Your task to perform on an android device: set the stopwatch Image 0: 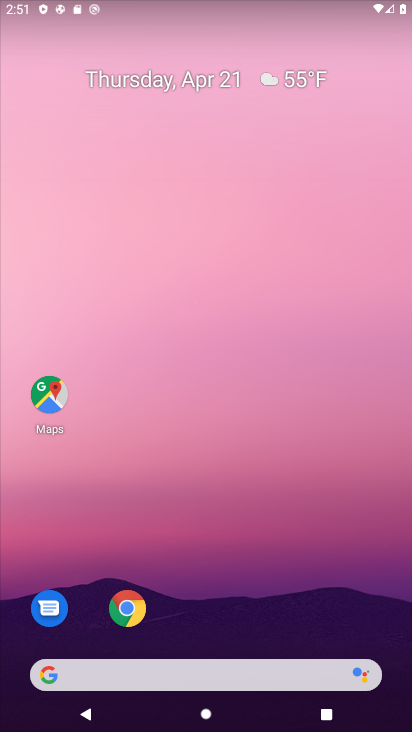
Step 0: drag from (253, 583) to (291, 2)
Your task to perform on an android device: set the stopwatch Image 1: 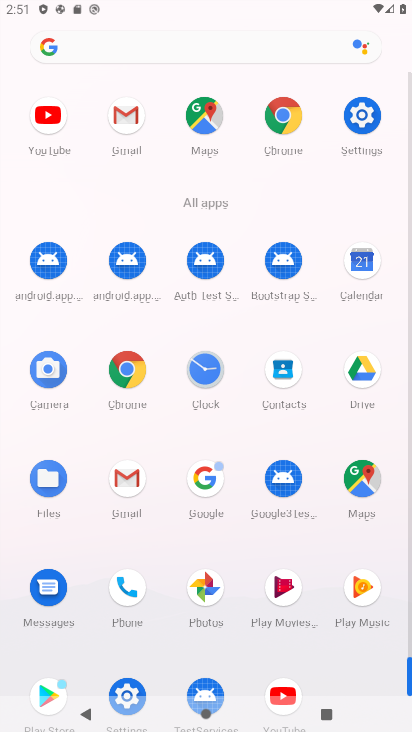
Step 1: click (199, 373)
Your task to perform on an android device: set the stopwatch Image 2: 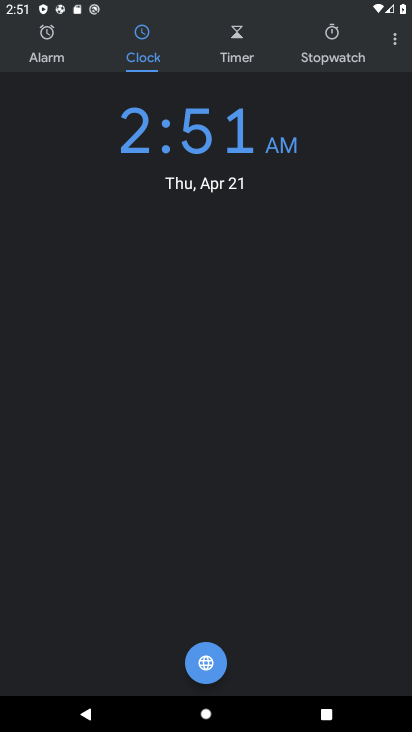
Step 2: click (345, 45)
Your task to perform on an android device: set the stopwatch Image 3: 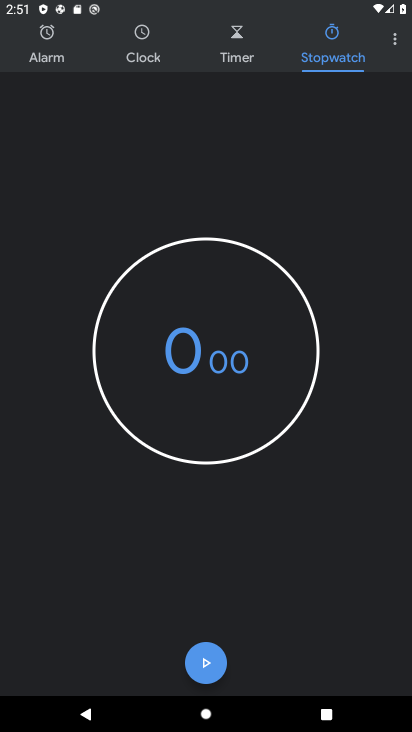
Step 3: click (198, 652)
Your task to perform on an android device: set the stopwatch Image 4: 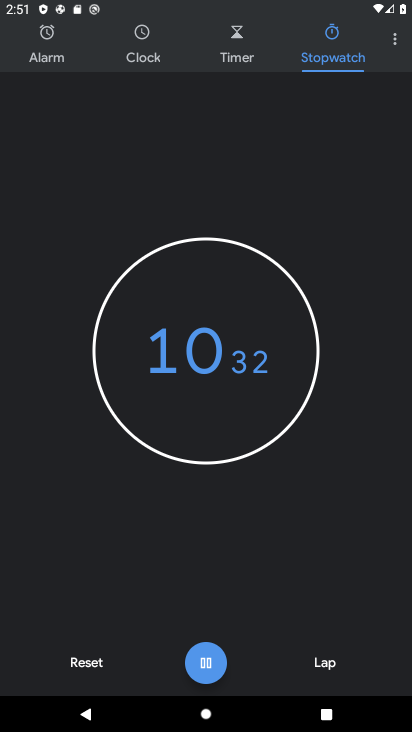
Step 4: task complete